Your task to perform on an android device: When is my next meeting? Image 0: 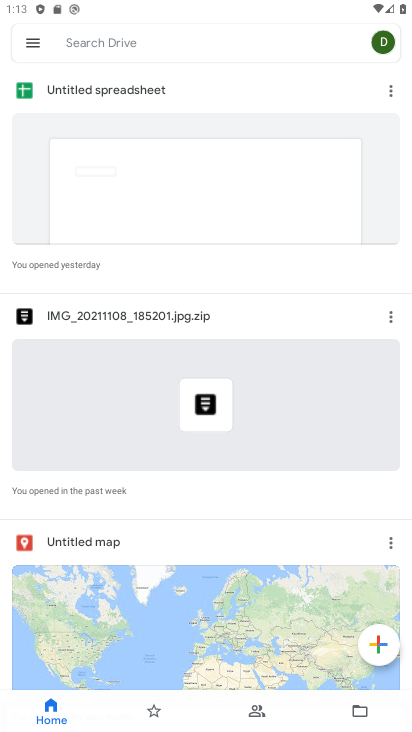
Step 0: press home button
Your task to perform on an android device: When is my next meeting? Image 1: 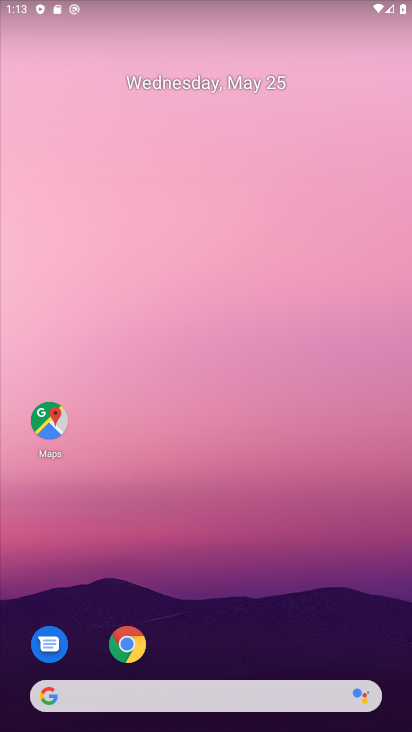
Step 1: drag from (201, 632) to (195, 159)
Your task to perform on an android device: When is my next meeting? Image 2: 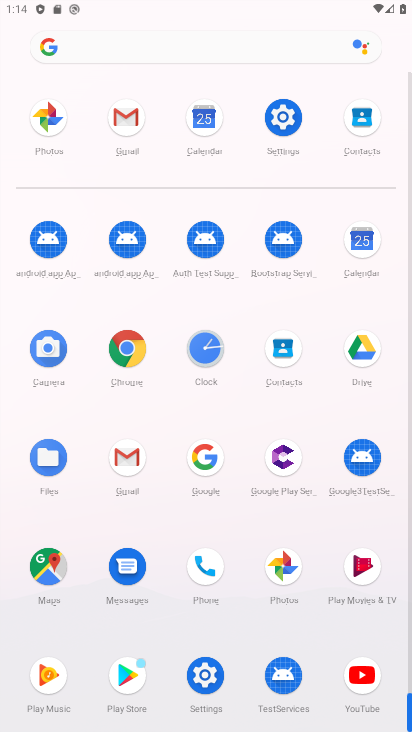
Step 2: click (357, 260)
Your task to perform on an android device: When is my next meeting? Image 3: 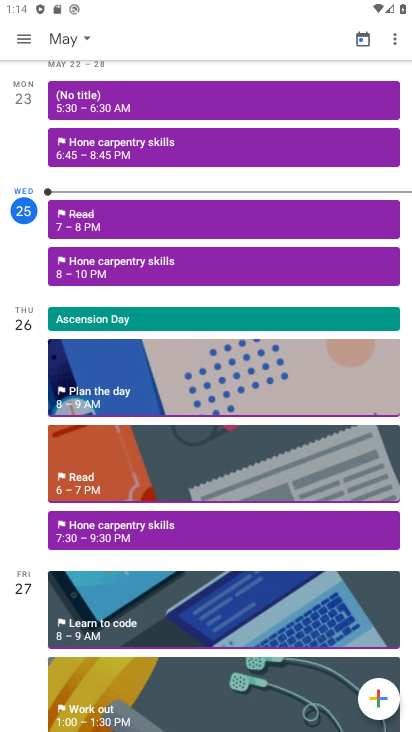
Step 3: task complete